Your task to perform on an android device: turn on sleep mode Image 0: 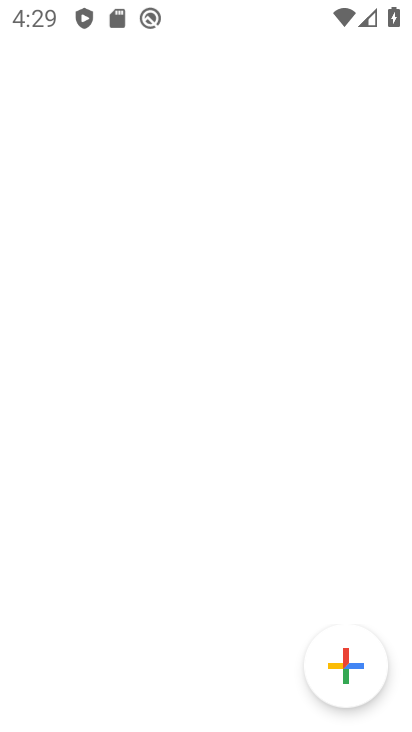
Step 0: drag from (338, 679) to (299, 126)
Your task to perform on an android device: turn on sleep mode Image 1: 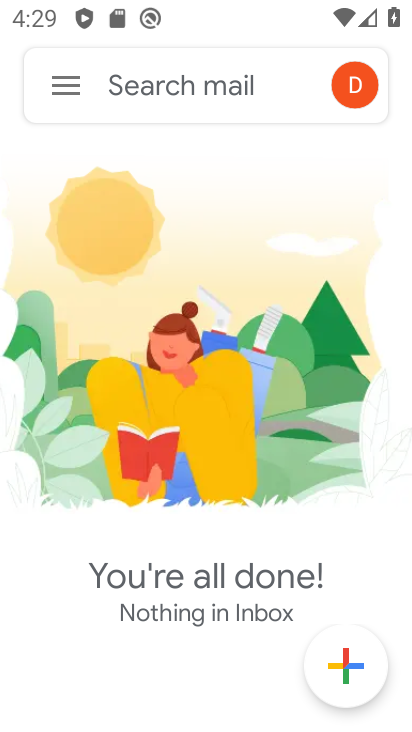
Step 1: press back button
Your task to perform on an android device: turn on sleep mode Image 2: 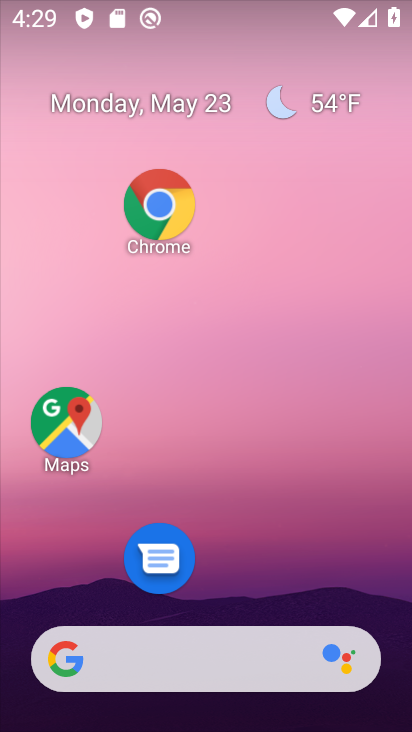
Step 2: drag from (298, 622) to (166, 9)
Your task to perform on an android device: turn on sleep mode Image 3: 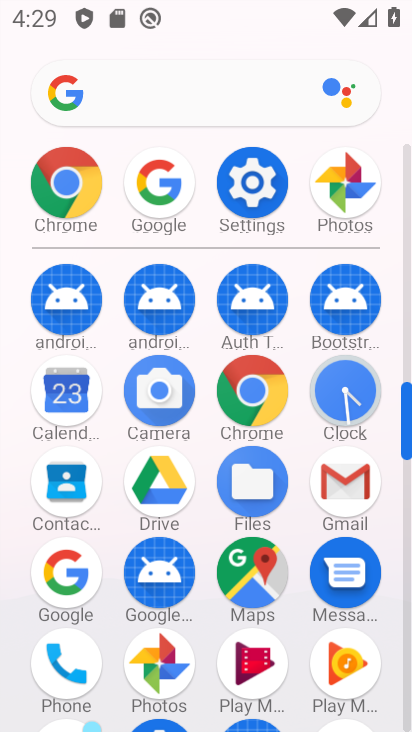
Step 3: drag from (312, 414) to (268, 13)
Your task to perform on an android device: turn on sleep mode Image 4: 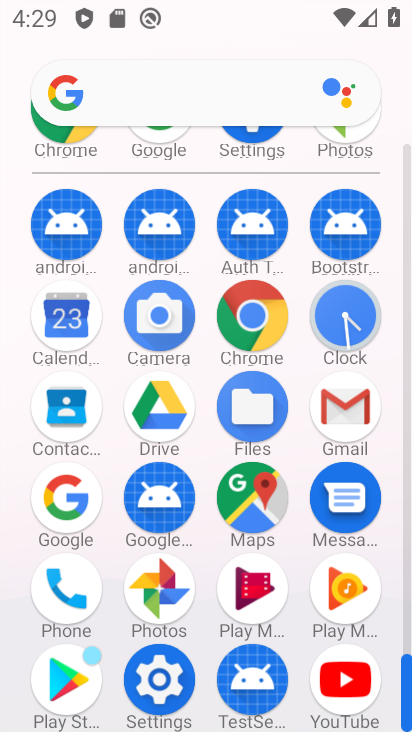
Step 4: click (153, 676)
Your task to perform on an android device: turn on sleep mode Image 5: 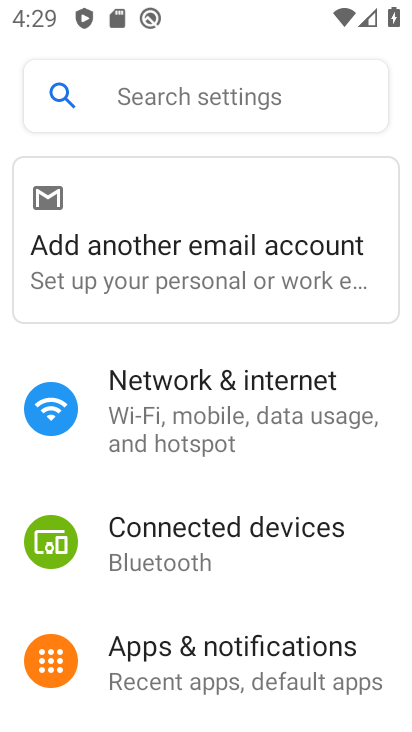
Step 5: drag from (254, 620) to (189, 225)
Your task to perform on an android device: turn on sleep mode Image 6: 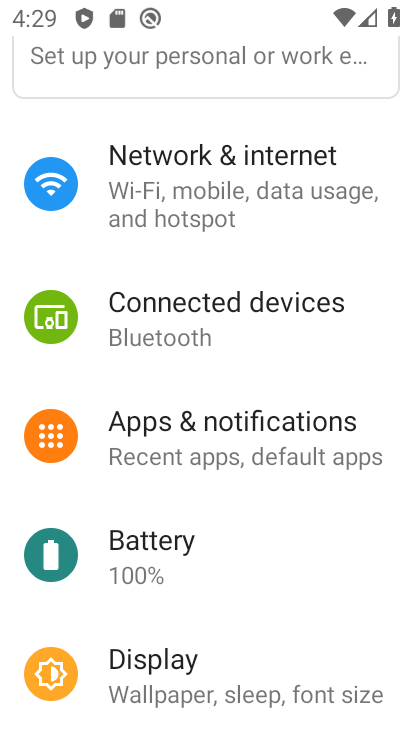
Step 6: drag from (233, 431) to (221, 175)
Your task to perform on an android device: turn on sleep mode Image 7: 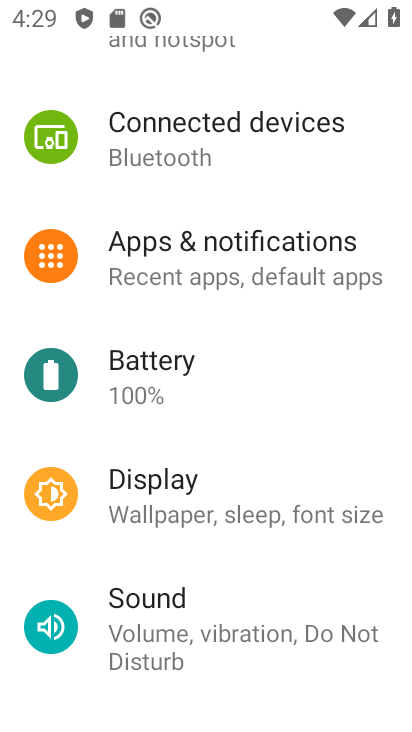
Step 7: drag from (281, 486) to (275, 257)
Your task to perform on an android device: turn on sleep mode Image 8: 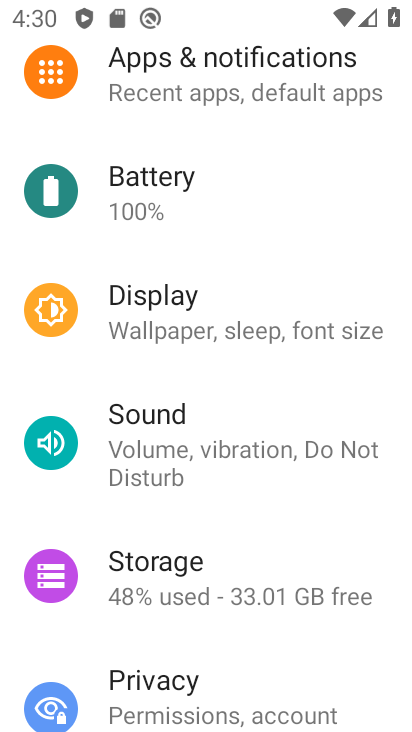
Step 8: drag from (218, 555) to (214, 275)
Your task to perform on an android device: turn on sleep mode Image 9: 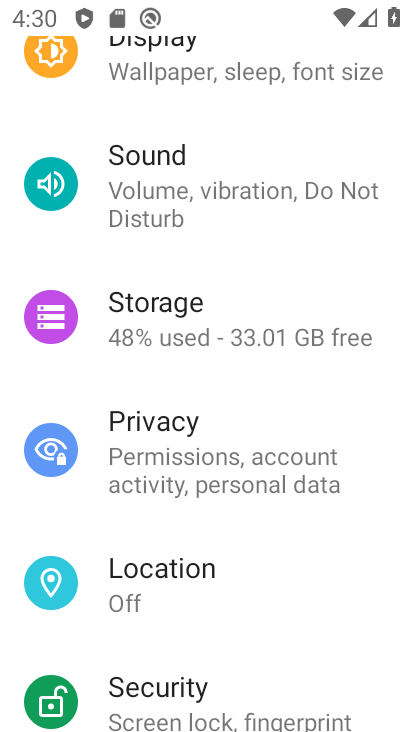
Step 9: drag from (233, 559) to (215, 32)
Your task to perform on an android device: turn on sleep mode Image 10: 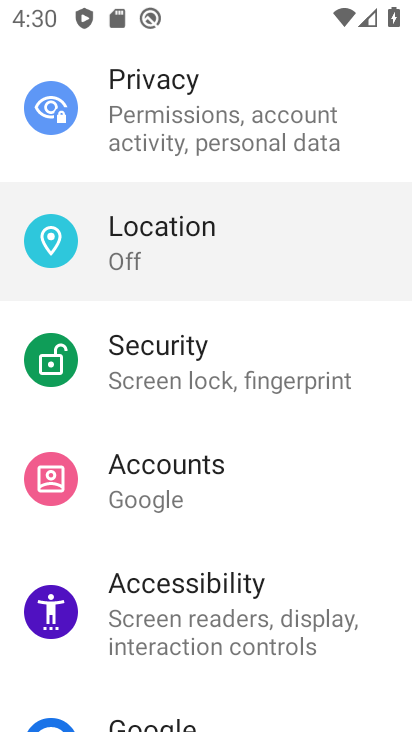
Step 10: drag from (303, 452) to (239, 71)
Your task to perform on an android device: turn on sleep mode Image 11: 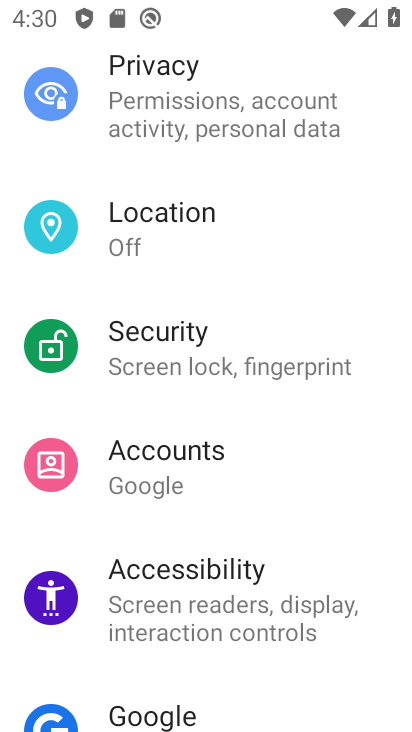
Step 11: drag from (262, 555) to (244, 157)
Your task to perform on an android device: turn on sleep mode Image 12: 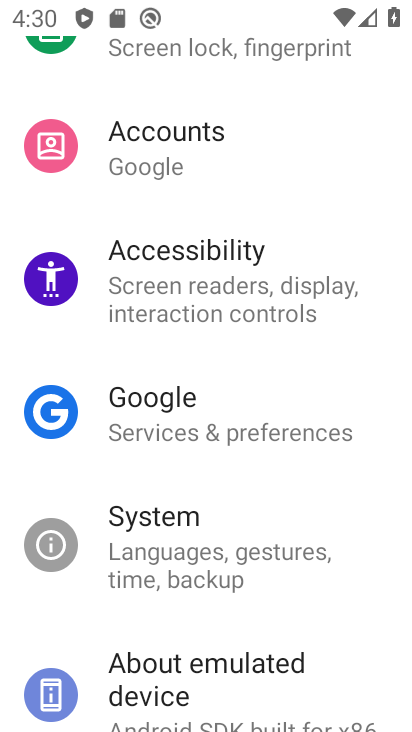
Step 12: drag from (209, 655) to (194, 253)
Your task to perform on an android device: turn on sleep mode Image 13: 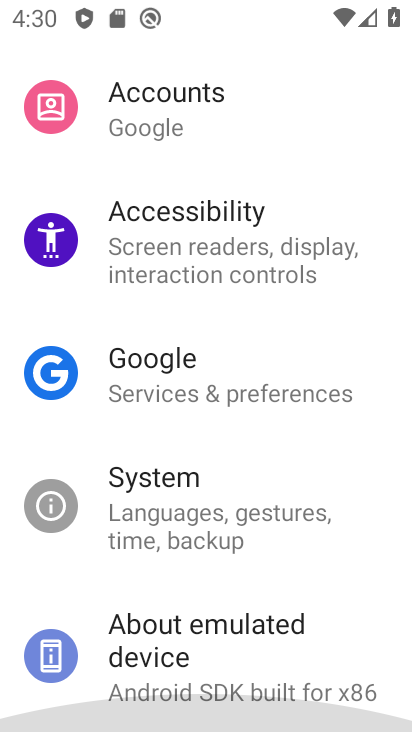
Step 13: drag from (254, 568) to (183, 122)
Your task to perform on an android device: turn on sleep mode Image 14: 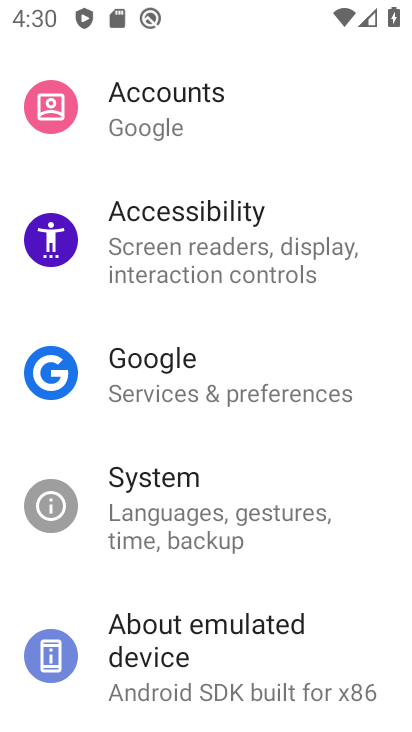
Step 14: drag from (189, 428) to (189, 262)
Your task to perform on an android device: turn on sleep mode Image 15: 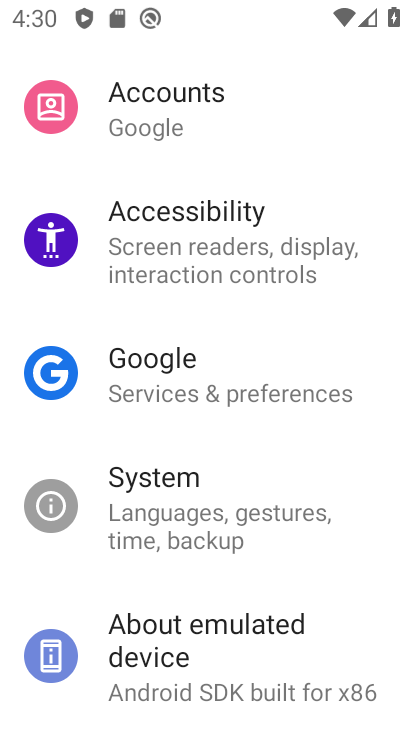
Step 15: drag from (223, 475) to (204, 256)
Your task to perform on an android device: turn on sleep mode Image 16: 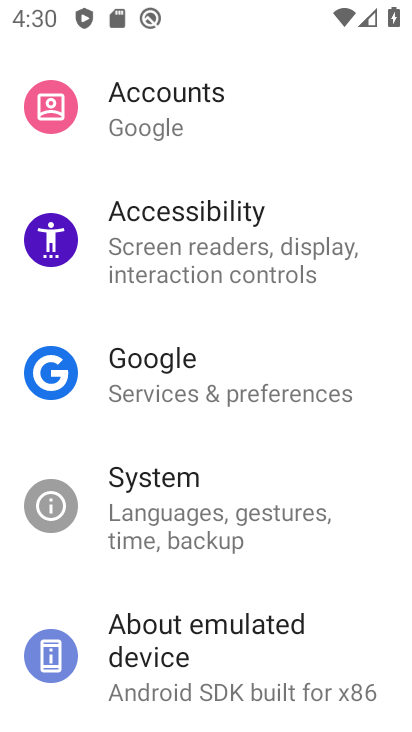
Step 16: drag from (212, 412) to (184, 90)
Your task to perform on an android device: turn on sleep mode Image 17: 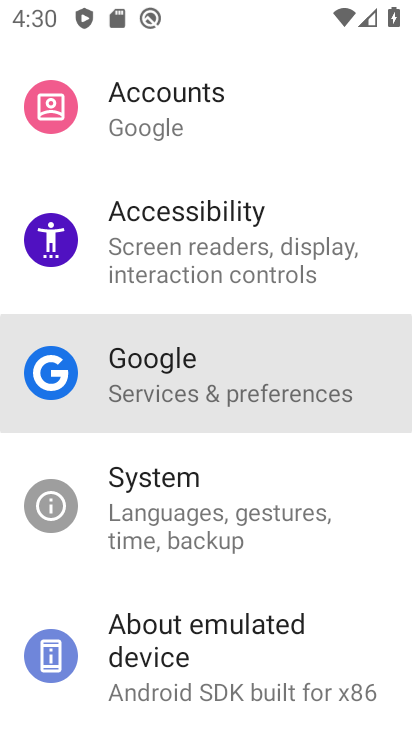
Step 17: drag from (205, 531) to (106, 184)
Your task to perform on an android device: turn on sleep mode Image 18: 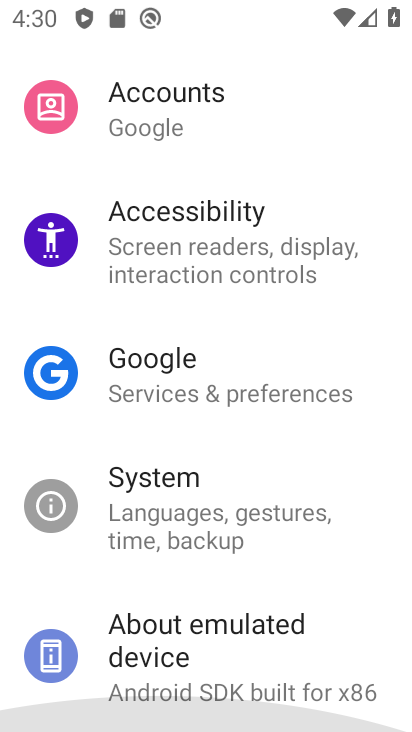
Step 18: drag from (174, 515) to (130, 160)
Your task to perform on an android device: turn on sleep mode Image 19: 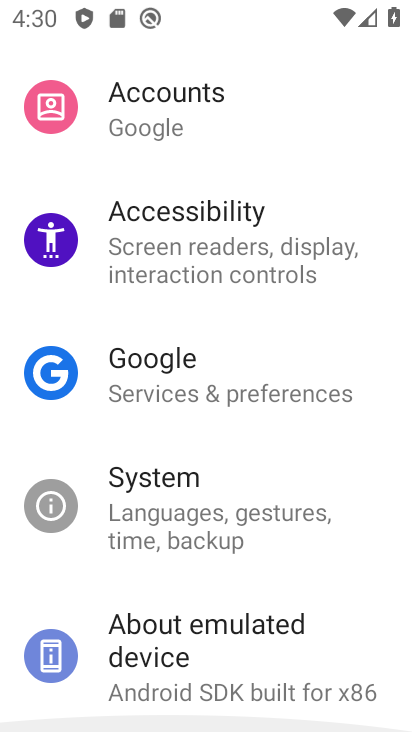
Step 19: drag from (156, 433) to (103, 162)
Your task to perform on an android device: turn on sleep mode Image 20: 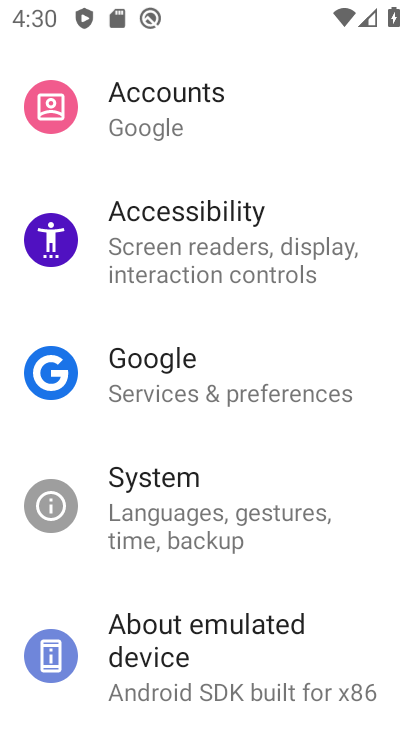
Step 20: drag from (271, 541) to (268, 151)
Your task to perform on an android device: turn on sleep mode Image 21: 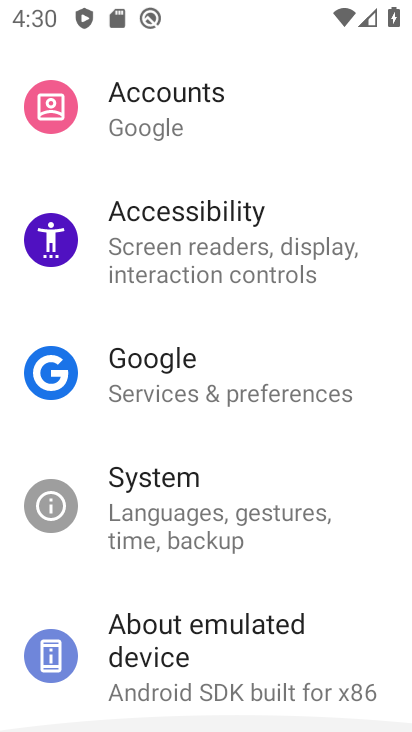
Step 21: drag from (304, 448) to (258, 21)
Your task to perform on an android device: turn on sleep mode Image 22: 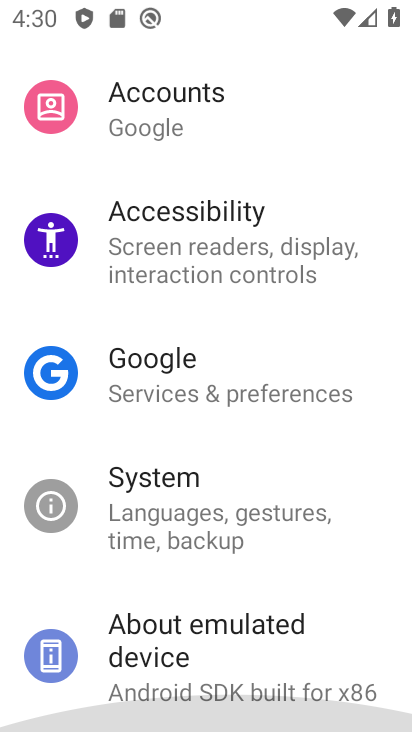
Step 22: drag from (191, 427) to (191, 107)
Your task to perform on an android device: turn on sleep mode Image 23: 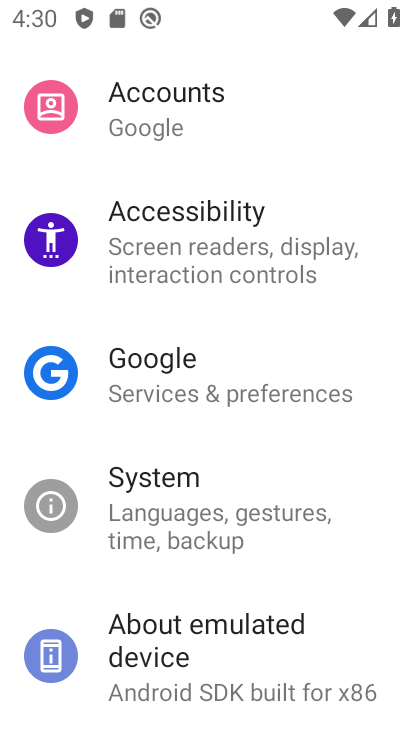
Step 23: click (216, 149)
Your task to perform on an android device: turn on sleep mode Image 24: 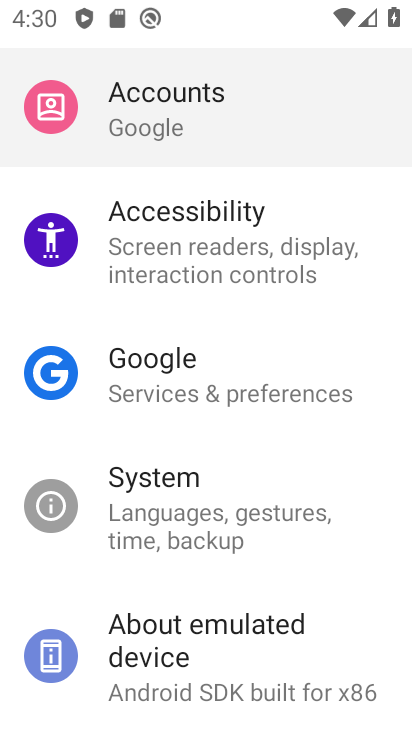
Step 24: drag from (224, 517) to (247, 137)
Your task to perform on an android device: turn on sleep mode Image 25: 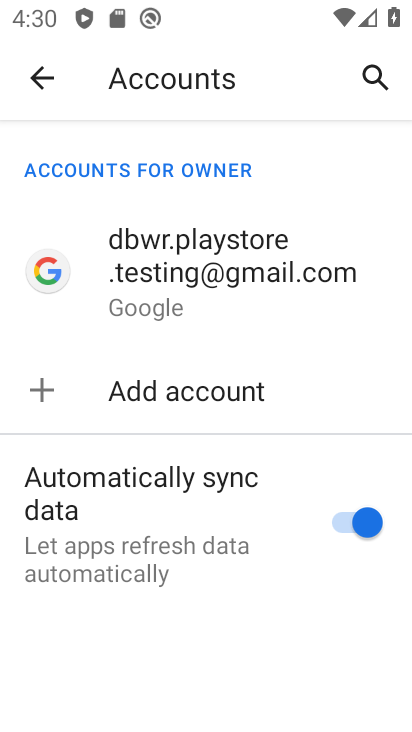
Step 25: click (45, 83)
Your task to perform on an android device: turn on sleep mode Image 26: 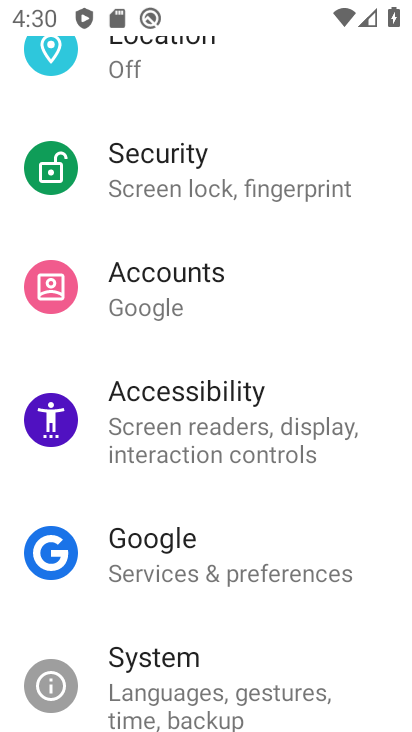
Step 26: drag from (248, 502) to (158, 238)
Your task to perform on an android device: turn on sleep mode Image 27: 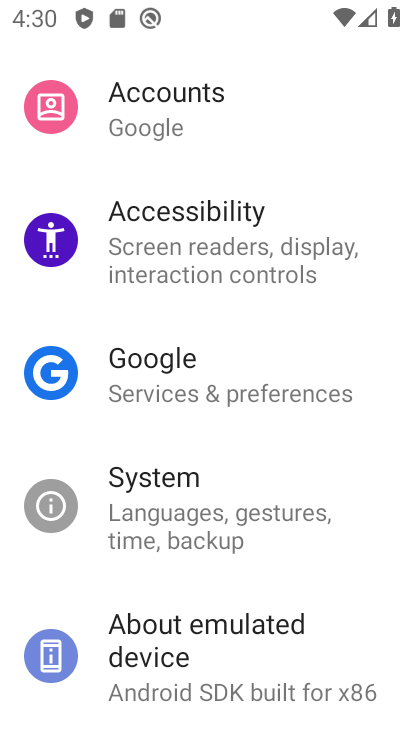
Step 27: drag from (211, 448) to (160, 67)
Your task to perform on an android device: turn on sleep mode Image 28: 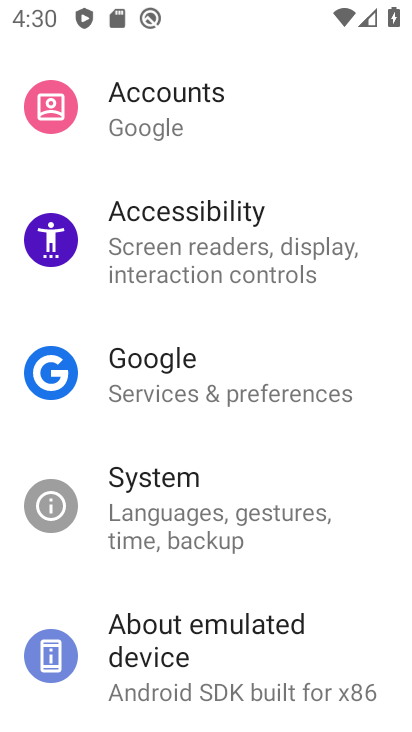
Step 28: drag from (252, 431) to (205, 114)
Your task to perform on an android device: turn on sleep mode Image 29: 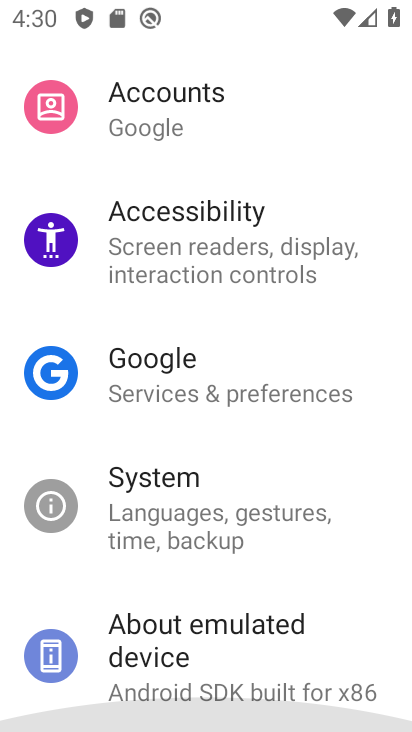
Step 29: drag from (230, 426) to (180, 133)
Your task to perform on an android device: turn on sleep mode Image 30: 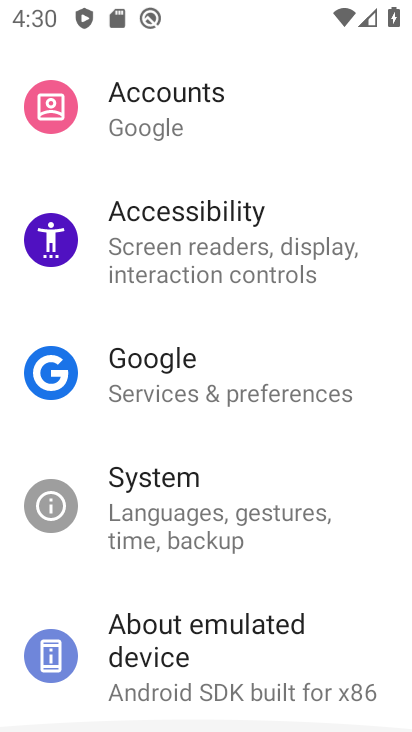
Step 30: drag from (231, 359) to (172, 156)
Your task to perform on an android device: turn on sleep mode Image 31: 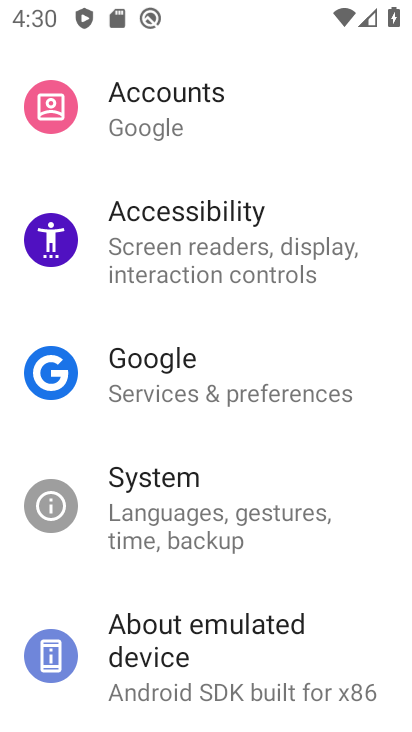
Step 31: drag from (197, 221) to (264, 496)
Your task to perform on an android device: turn on sleep mode Image 32: 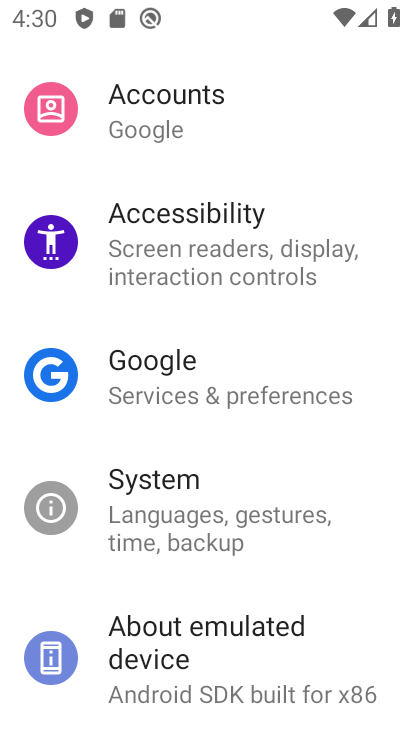
Step 32: drag from (207, 309) to (284, 563)
Your task to perform on an android device: turn on sleep mode Image 33: 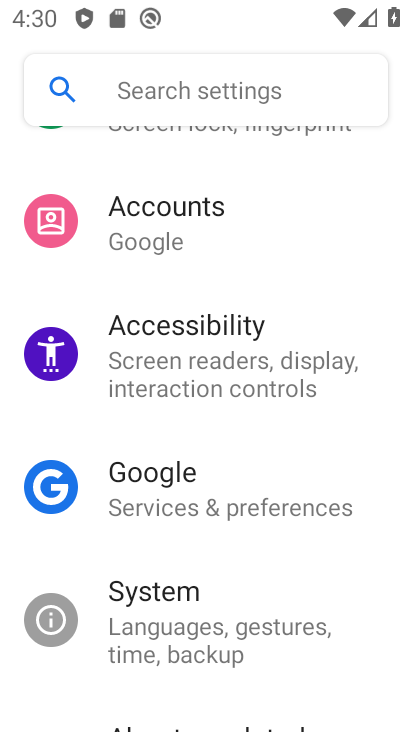
Step 33: drag from (203, 264) to (239, 580)
Your task to perform on an android device: turn on sleep mode Image 34: 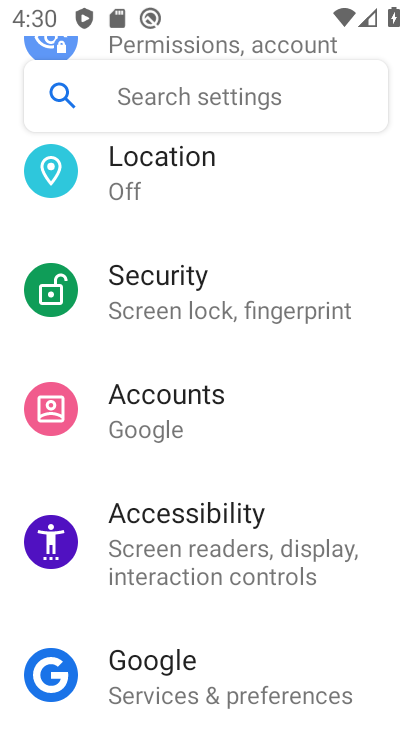
Step 34: drag from (215, 348) to (219, 633)
Your task to perform on an android device: turn on sleep mode Image 35: 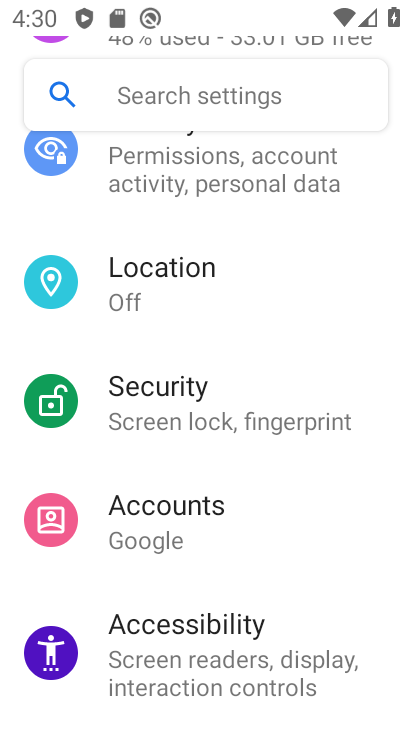
Step 35: drag from (203, 619) to (141, 677)
Your task to perform on an android device: turn on sleep mode Image 36: 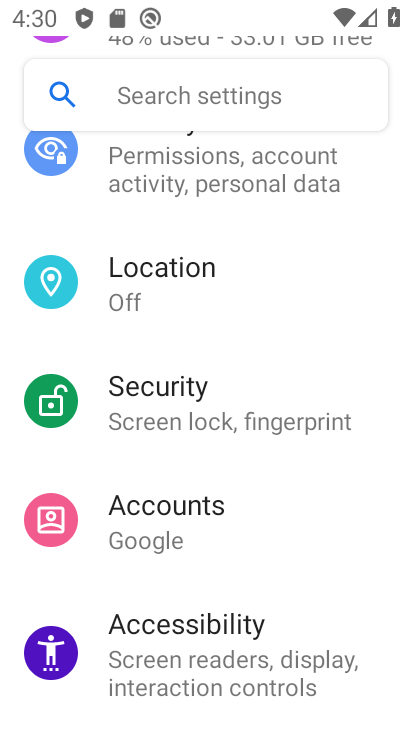
Step 36: drag from (146, 504) to (147, 538)
Your task to perform on an android device: turn on sleep mode Image 37: 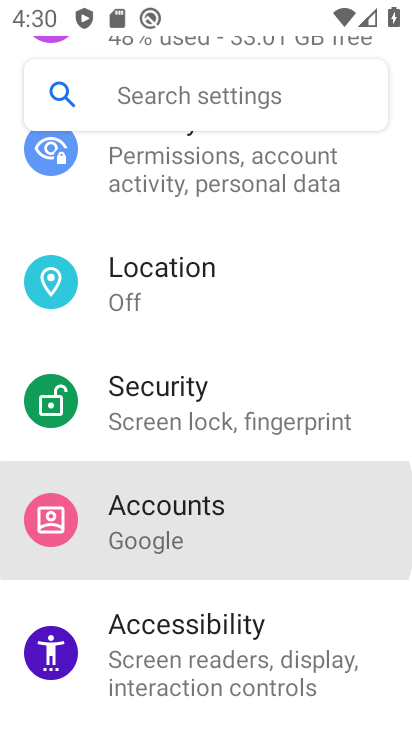
Step 37: drag from (141, 103) to (192, 576)
Your task to perform on an android device: turn on sleep mode Image 38: 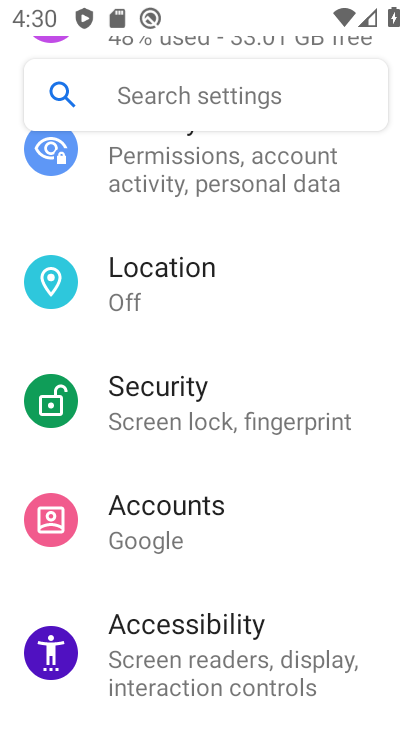
Step 38: drag from (189, 327) to (187, 619)
Your task to perform on an android device: turn on sleep mode Image 39: 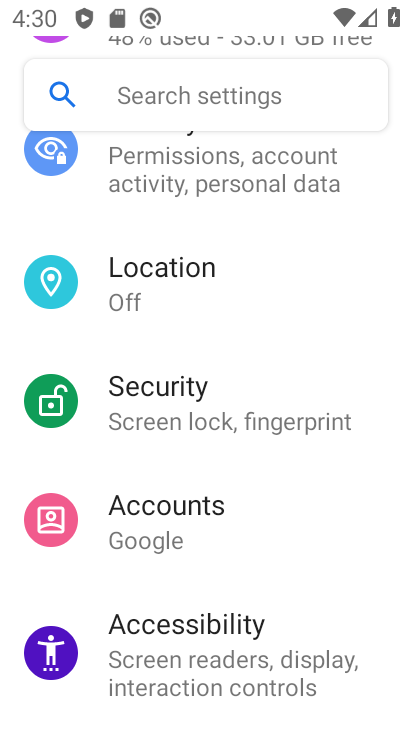
Step 39: click (157, 642)
Your task to perform on an android device: turn on sleep mode Image 40: 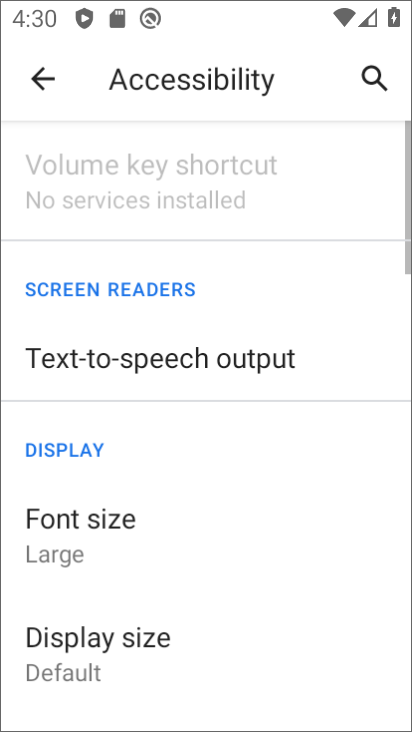
Step 40: drag from (169, 444) to (193, 604)
Your task to perform on an android device: turn on sleep mode Image 41: 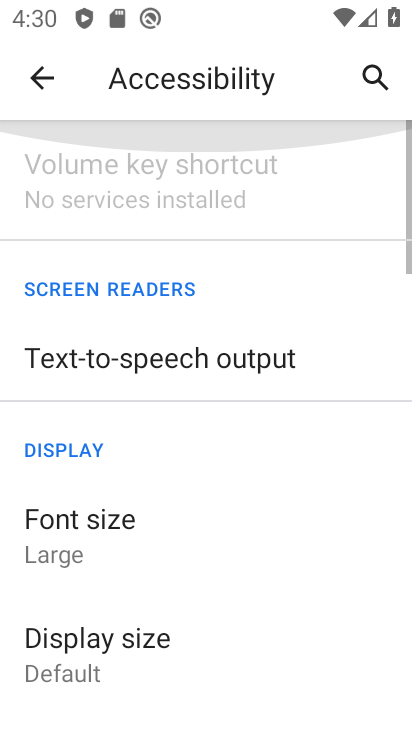
Step 41: drag from (190, 373) to (196, 534)
Your task to perform on an android device: turn on sleep mode Image 42: 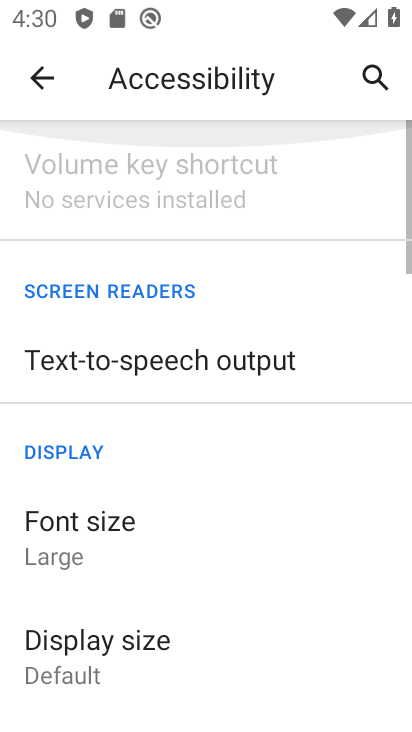
Step 42: drag from (215, 411) to (244, 573)
Your task to perform on an android device: turn on sleep mode Image 43: 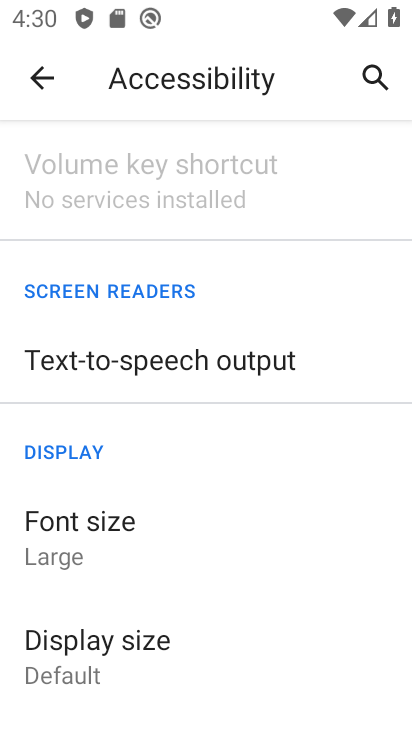
Step 43: click (39, 61)
Your task to perform on an android device: turn on sleep mode Image 44: 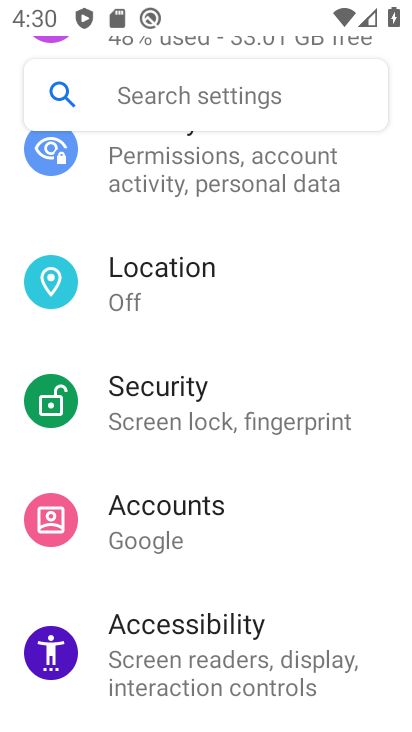
Step 44: drag from (152, 283) to (220, 437)
Your task to perform on an android device: turn on sleep mode Image 45: 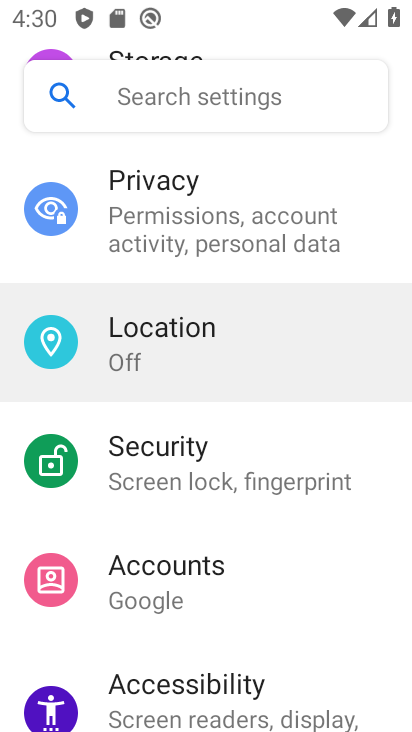
Step 45: drag from (170, 297) to (220, 515)
Your task to perform on an android device: turn on sleep mode Image 46: 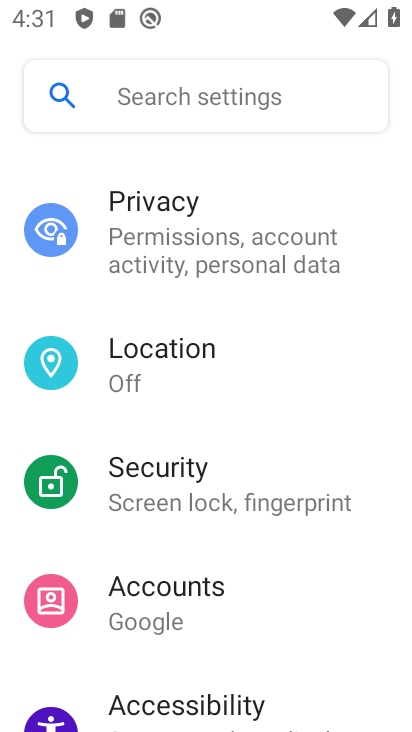
Step 46: drag from (153, 255) to (221, 547)
Your task to perform on an android device: turn on sleep mode Image 47: 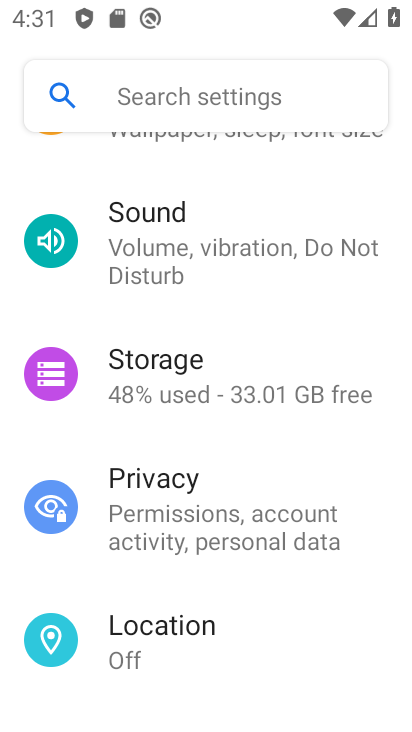
Step 47: drag from (143, 229) to (196, 512)
Your task to perform on an android device: turn on sleep mode Image 48: 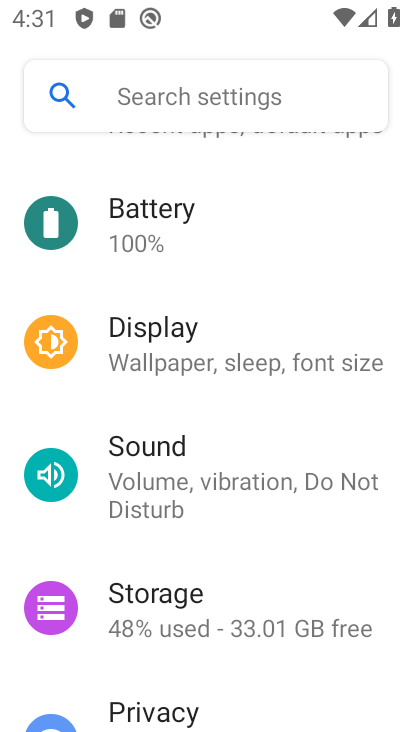
Step 48: click (156, 346)
Your task to perform on an android device: turn on sleep mode Image 49: 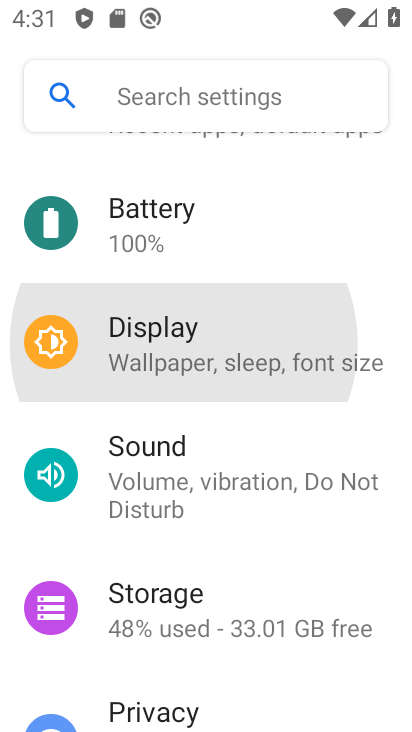
Step 49: click (155, 347)
Your task to perform on an android device: turn on sleep mode Image 50: 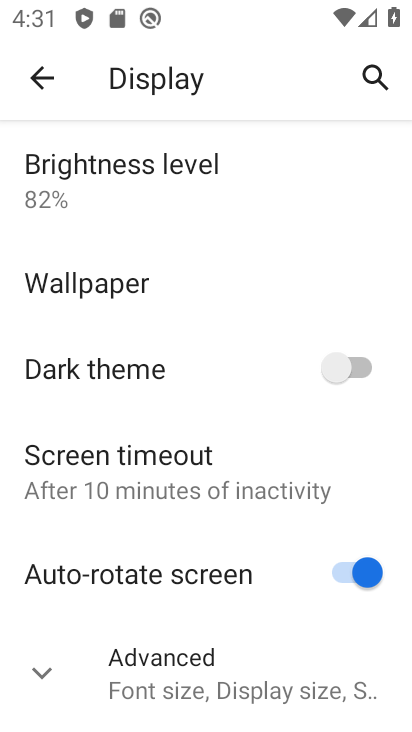
Step 50: task complete